Your task to perform on an android device: toggle notification dots Image 0: 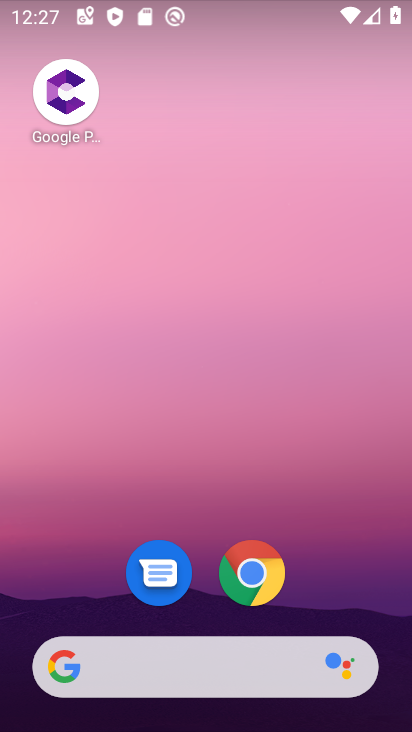
Step 0: drag from (351, 550) to (233, 25)
Your task to perform on an android device: toggle notification dots Image 1: 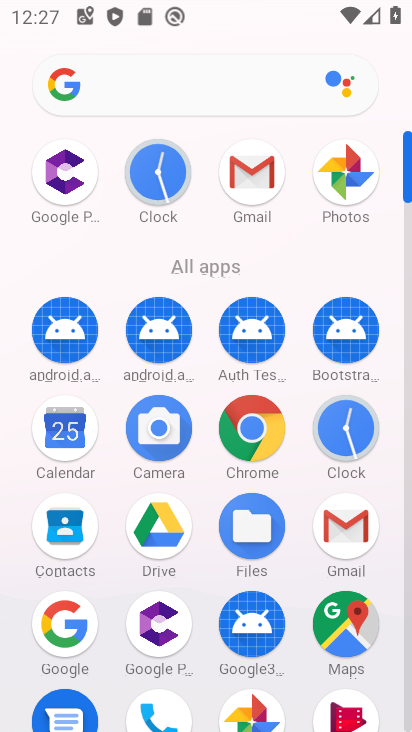
Step 1: drag from (217, 294) to (114, 20)
Your task to perform on an android device: toggle notification dots Image 2: 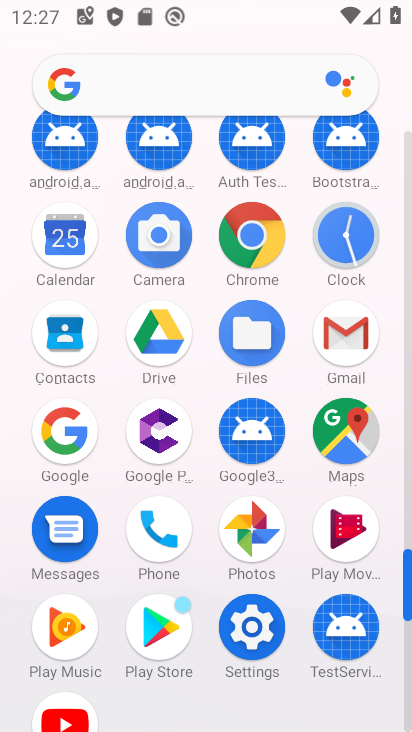
Step 2: click (251, 635)
Your task to perform on an android device: toggle notification dots Image 3: 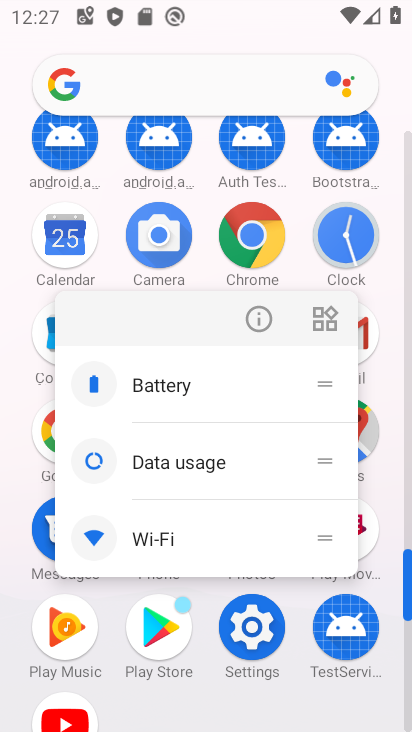
Step 3: click (252, 653)
Your task to perform on an android device: toggle notification dots Image 4: 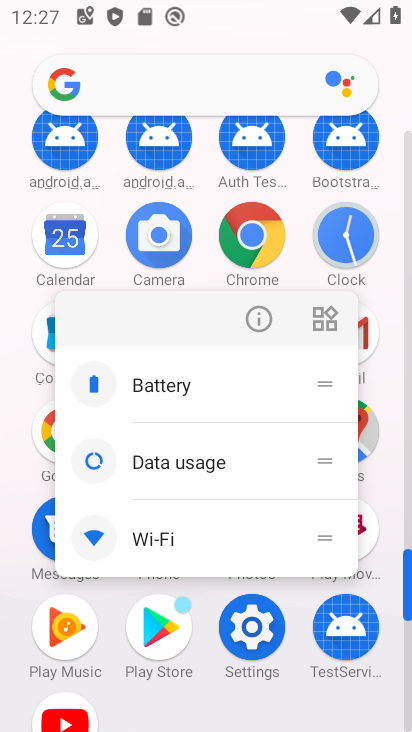
Step 4: click (257, 644)
Your task to perform on an android device: toggle notification dots Image 5: 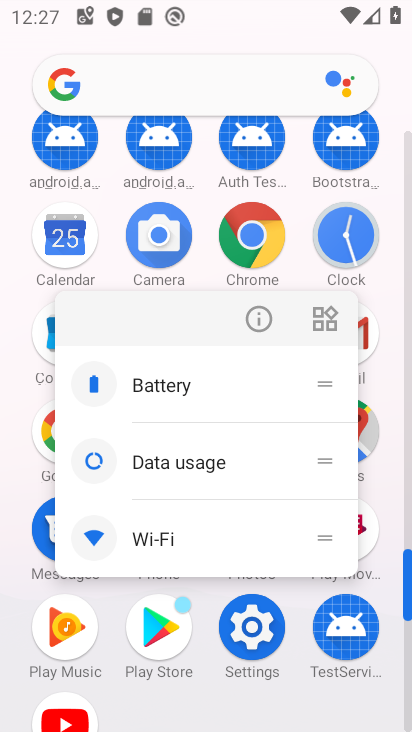
Step 5: click (249, 664)
Your task to perform on an android device: toggle notification dots Image 6: 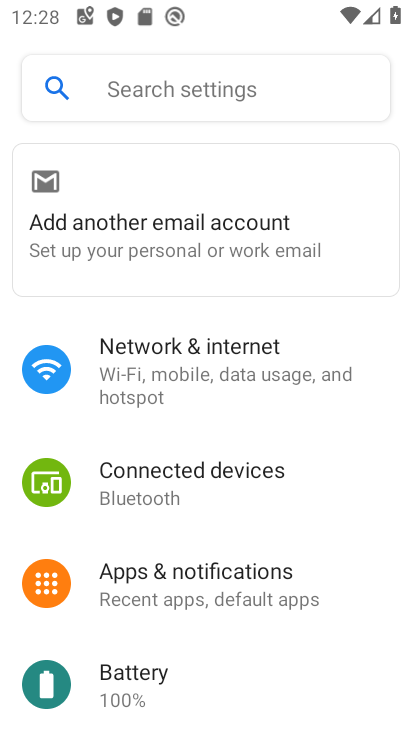
Step 6: drag from (200, 663) to (179, 445)
Your task to perform on an android device: toggle notification dots Image 7: 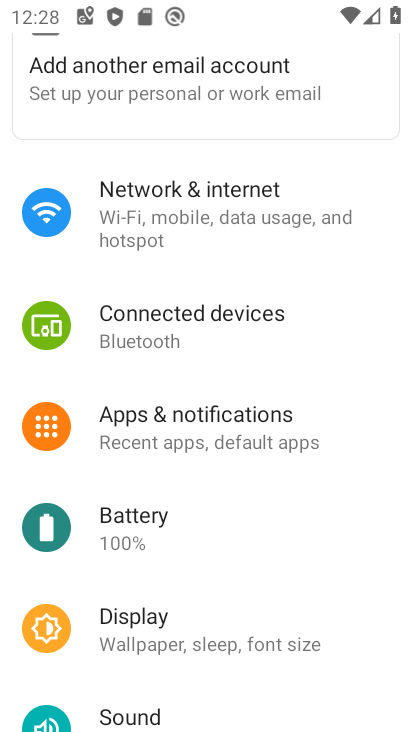
Step 7: click (182, 424)
Your task to perform on an android device: toggle notification dots Image 8: 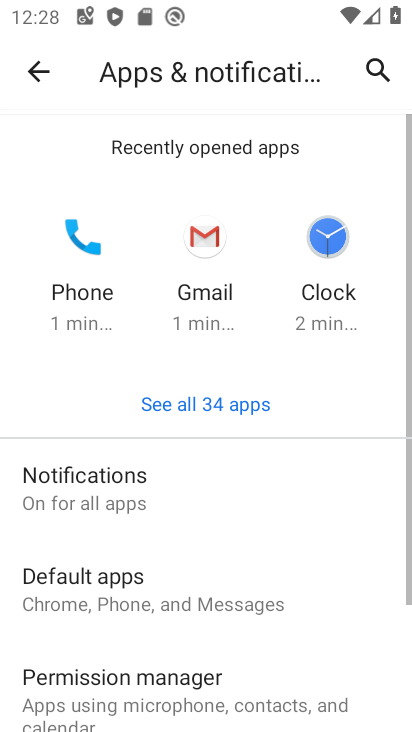
Step 8: drag from (222, 617) to (140, 169)
Your task to perform on an android device: toggle notification dots Image 9: 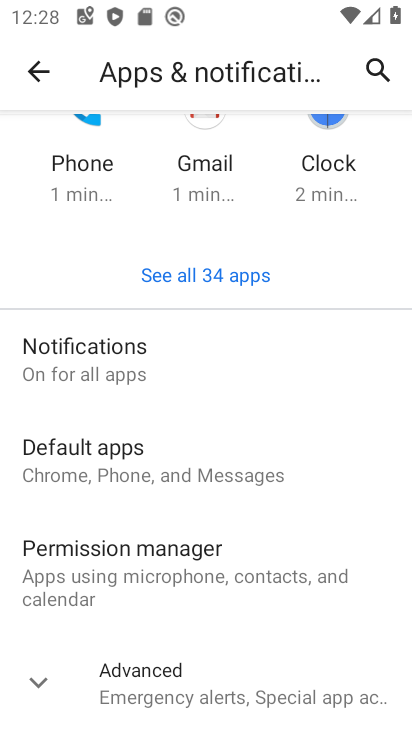
Step 9: drag from (218, 692) to (114, 218)
Your task to perform on an android device: toggle notification dots Image 10: 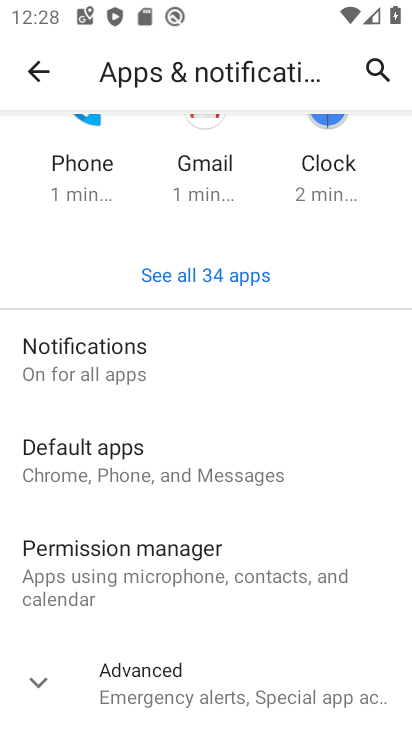
Step 10: drag from (235, 643) to (148, 136)
Your task to perform on an android device: toggle notification dots Image 11: 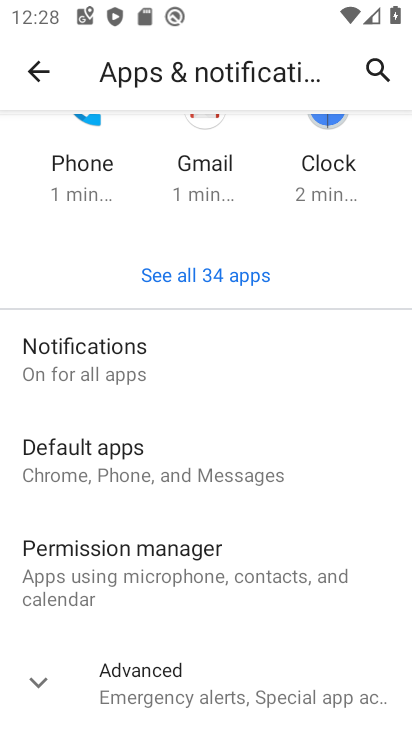
Step 11: drag from (219, 605) to (163, 218)
Your task to perform on an android device: toggle notification dots Image 12: 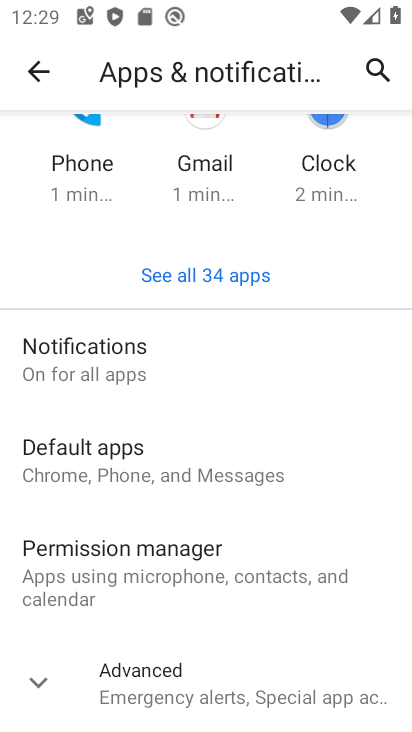
Step 12: drag from (162, 668) to (131, 376)
Your task to perform on an android device: toggle notification dots Image 13: 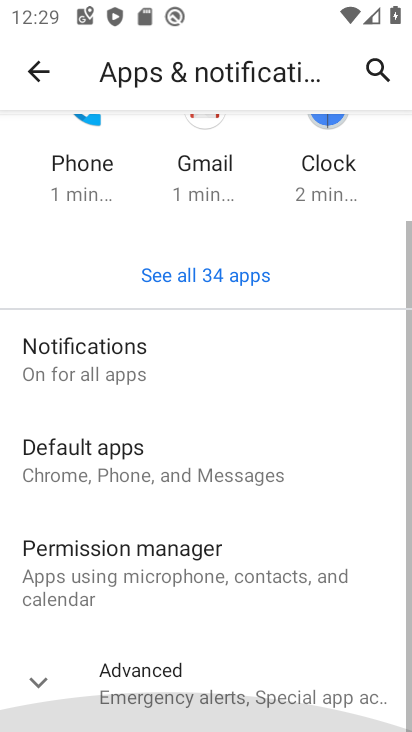
Step 13: click (124, 342)
Your task to perform on an android device: toggle notification dots Image 14: 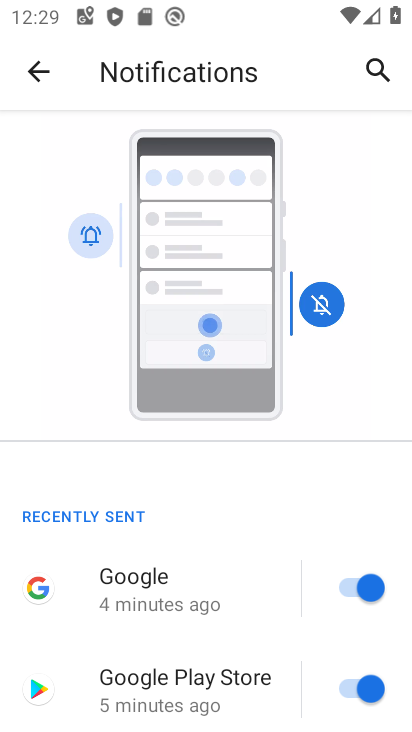
Step 14: drag from (162, 676) to (168, 160)
Your task to perform on an android device: toggle notification dots Image 15: 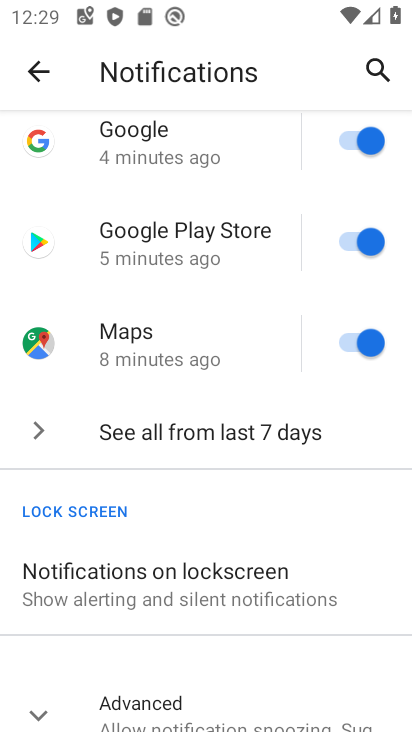
Step 15: drag from (195, 619) to (136, 238)
Your task to perform on an android device: toggle notification dots Image 16: 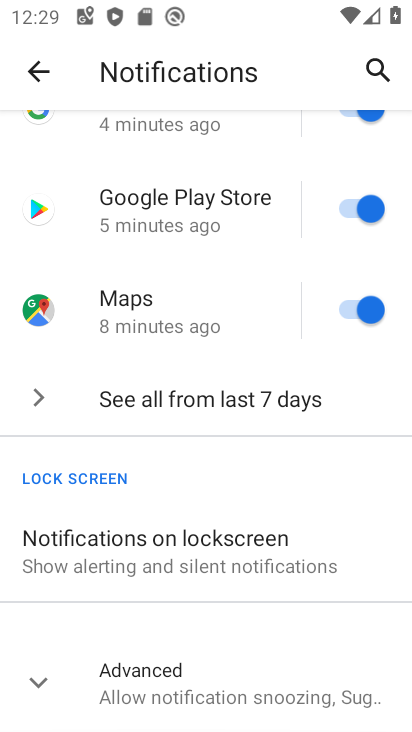
Step 16: click (164, 669)
Your task to perform on an android device: toggle notification dots Image 17: 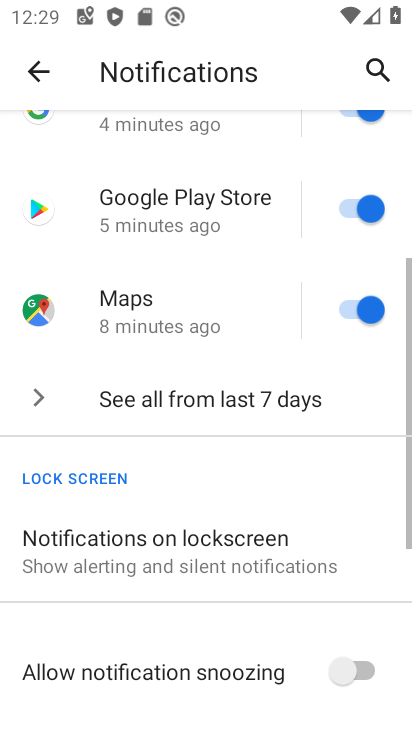
Step 17: drag from (152, 612) to (142, 244)
Your task to perform on an android device: toggle notification dots Image 18: 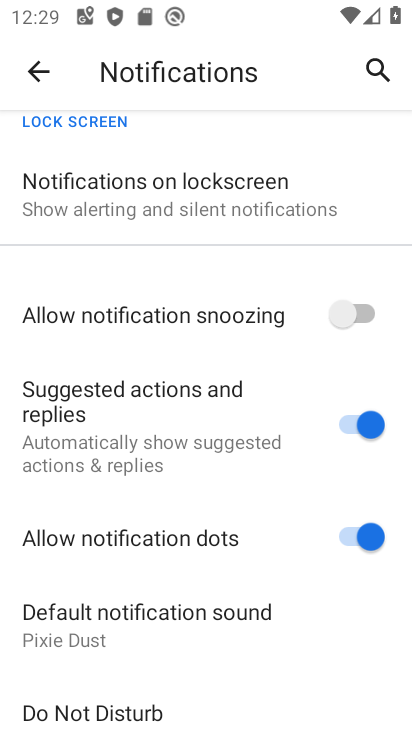
Step 18: drag from (179, 600) to (119, 221)
Your task to perform on an android device: toggle notification dots Image 19: 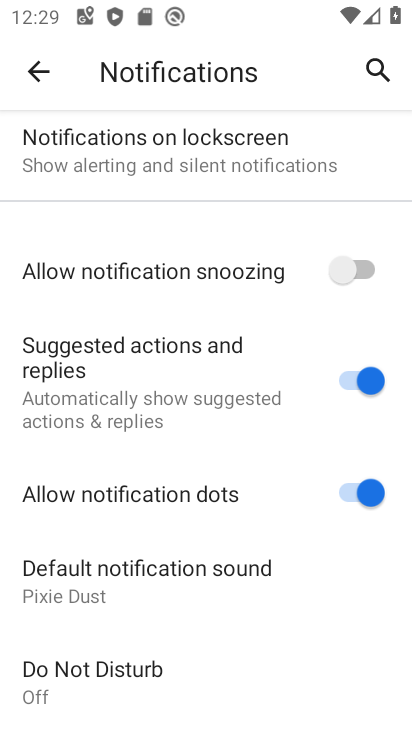
Step 19: click (183, 480)
Your task to perform on an android device: toggle notification dots Image 20: 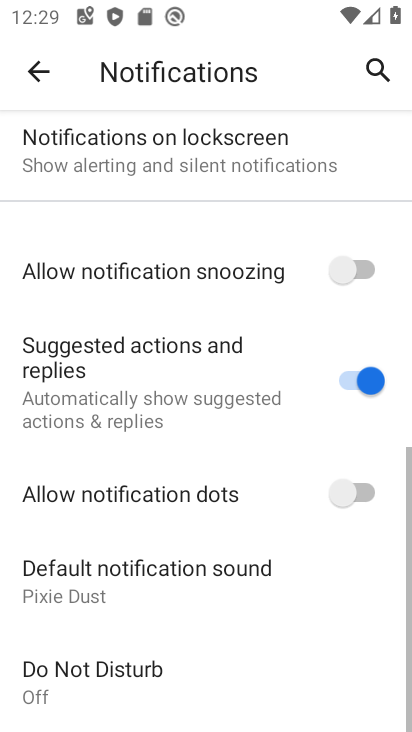
Step 20: task complete